Your task to perform on an android device: remove spam from my inbox in the gmail app Image 0: 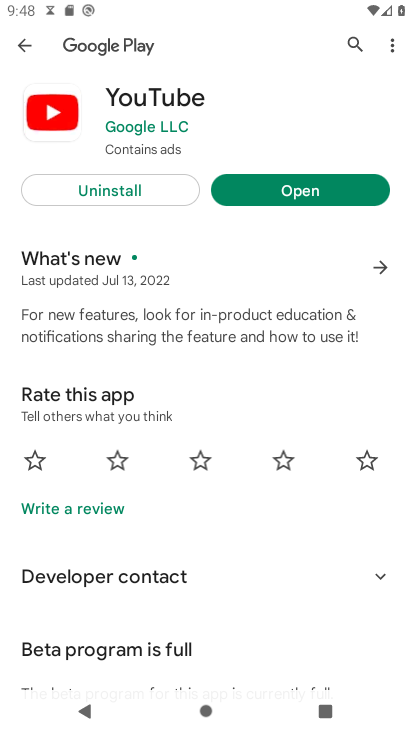
Step 0: press home button
Your task to perform on an android device: remove spam from my inbox in the gmail app Image 1: 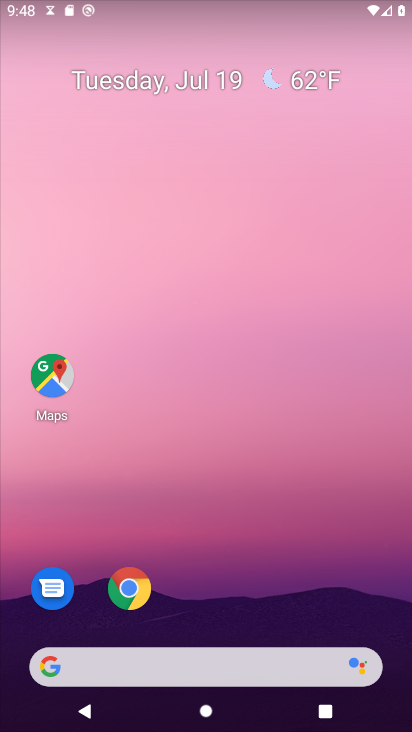
Step 1: drag from (189, 617) to (224, 105)
Your task to perform on an android device: remove spam from my inbox in the gmail app Image 2: 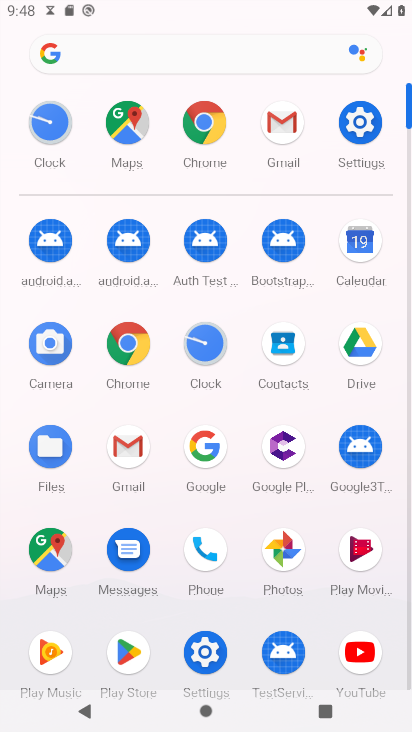
Step 2: click (289, 125)
Your task to perform on an android device: remove spam from my inbox in the gmail app Image 3: 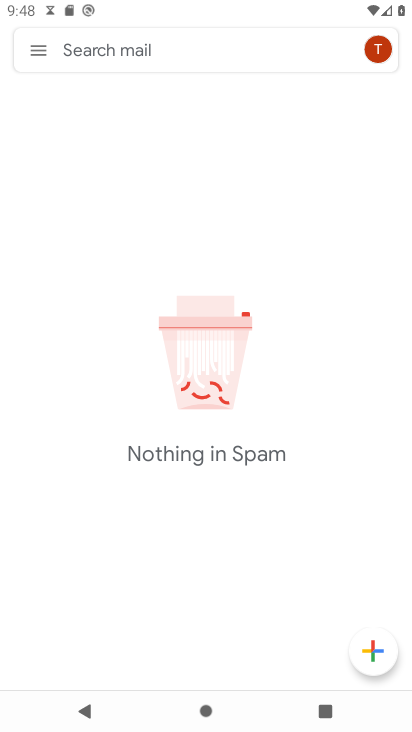
Step 3: task complete